Your task to perform on an android device: add a contact in the contacts app Image 0: 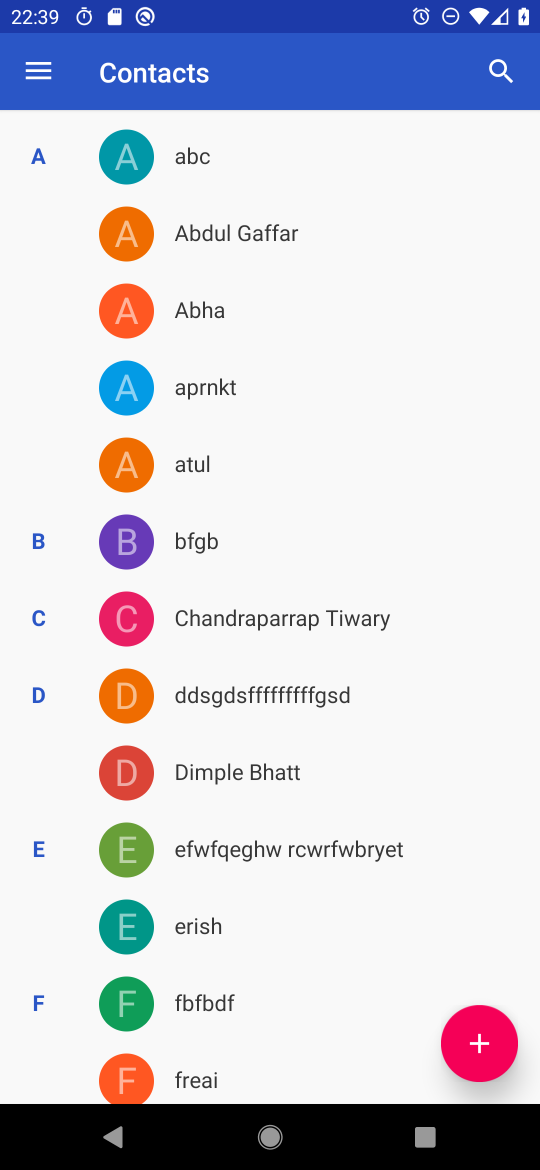
Step 0: click (467, 1044)
Your task to perform on an android device: add a contact in the contacts app Image 1: 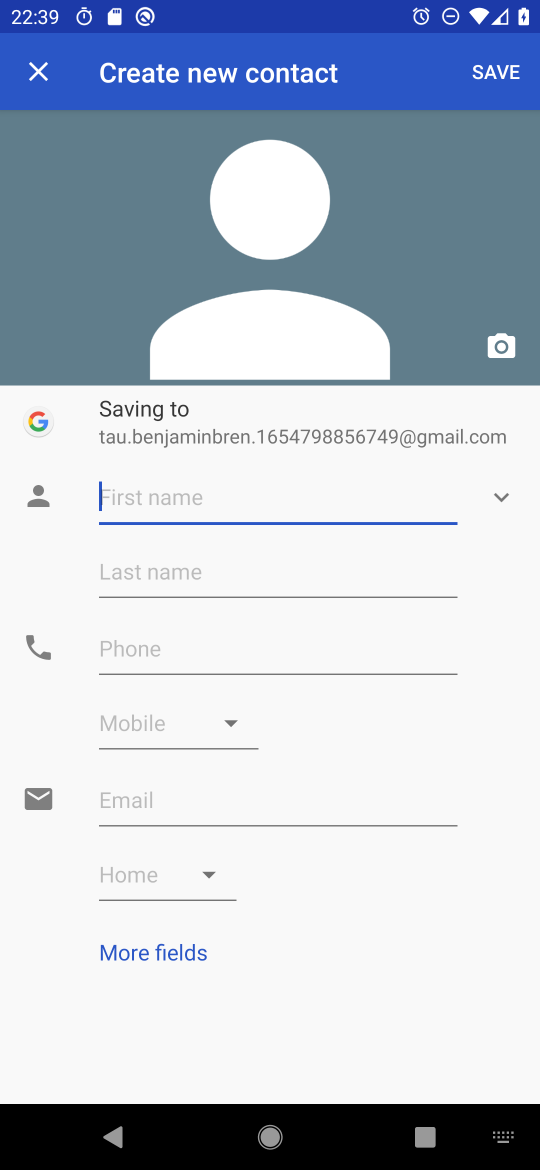
Step 1: type "mmyuij"
Your task to perform on an android device: add a contact in the contacts app Image 2: 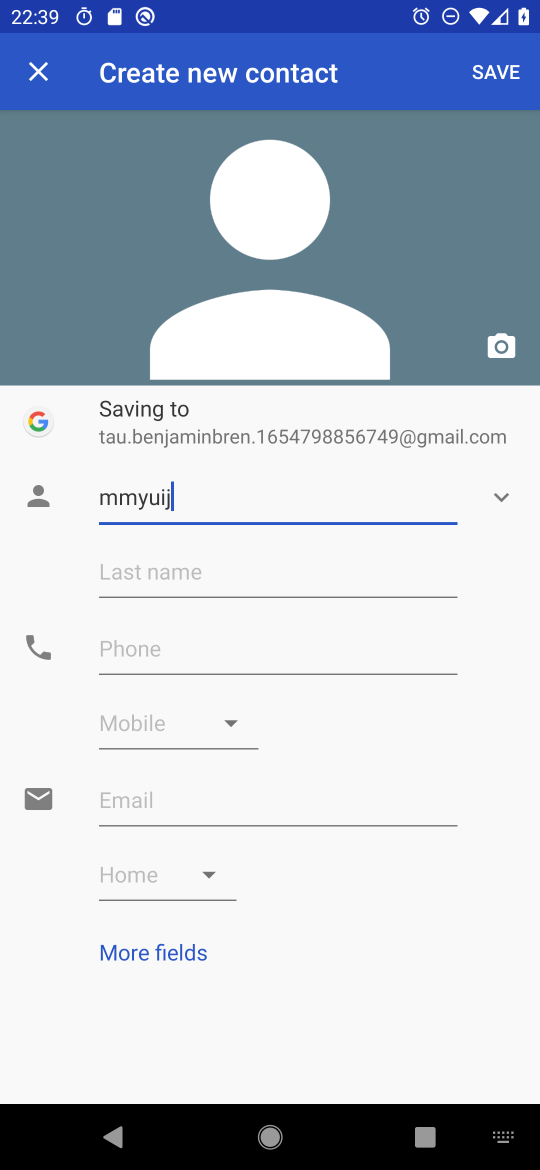
Step 2: click (489, 88)
Your task to perform on an android device: add a contact in the contacts app Image 3: 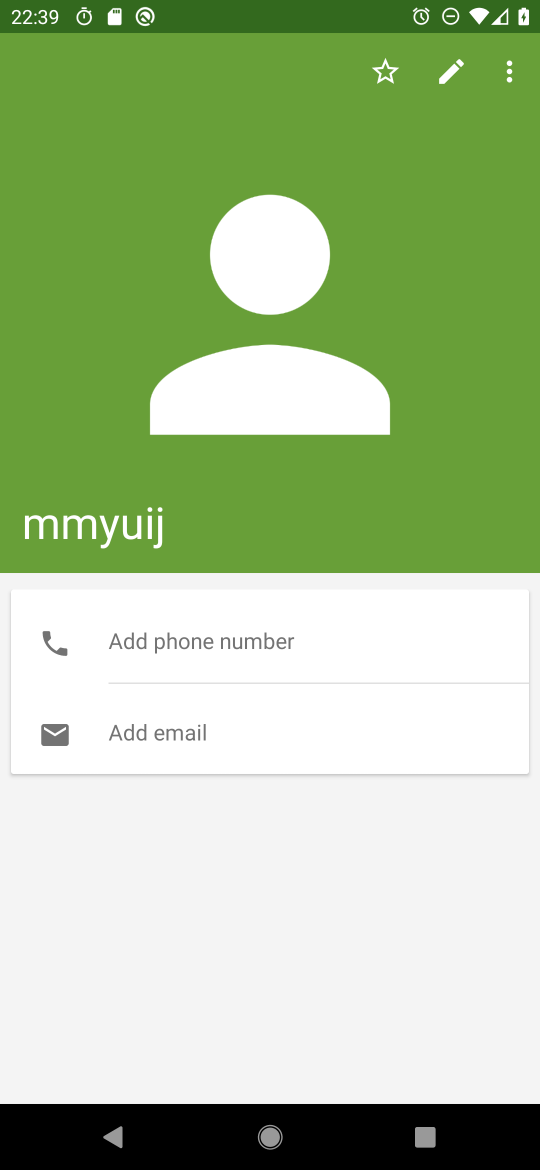
Step 3: task complete